Your task to perform on an android device: Open maps Image 0: 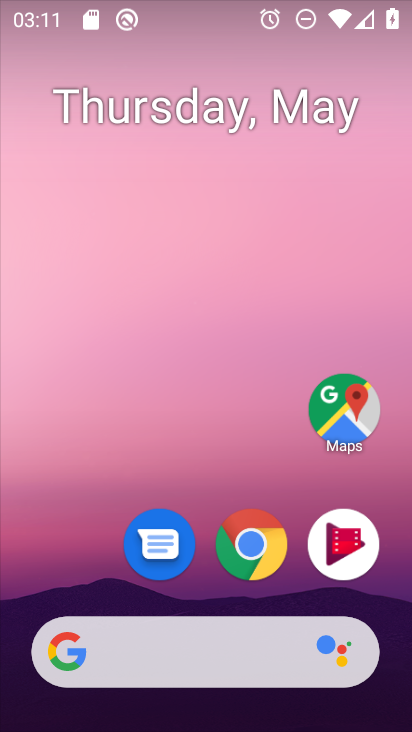
Step 0: drag from (58, 581) to (75, 238)
Your task to perform on an android device: Open maps Image 1: 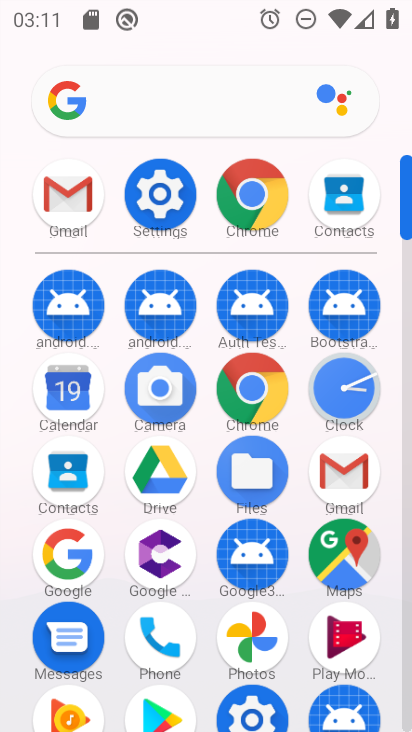
Step 1: click (359, 574)
Your task to perform on an android device: Open maps Image 2: 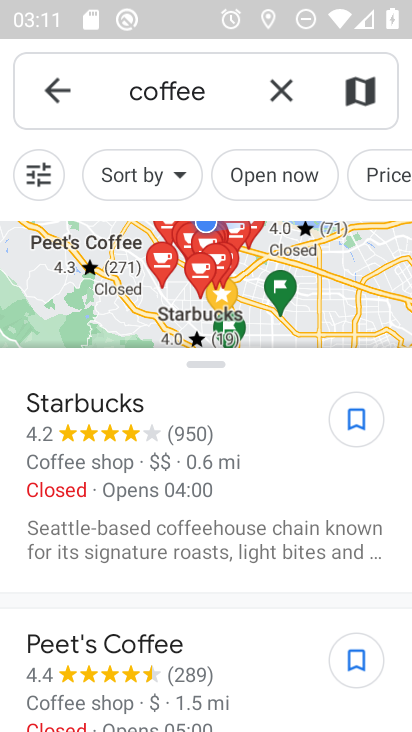
Step 2: task complete